Your task to perform on an android device: turn notification dots on Image 0: 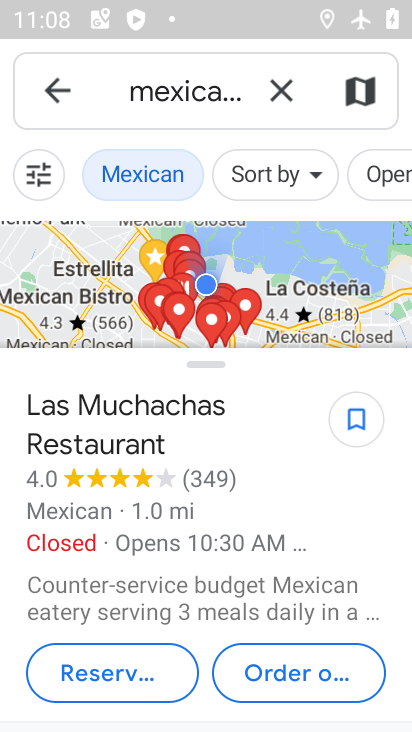
Step 0: press home button
Your task to perform on an android device: turn notification dots on Image 1: 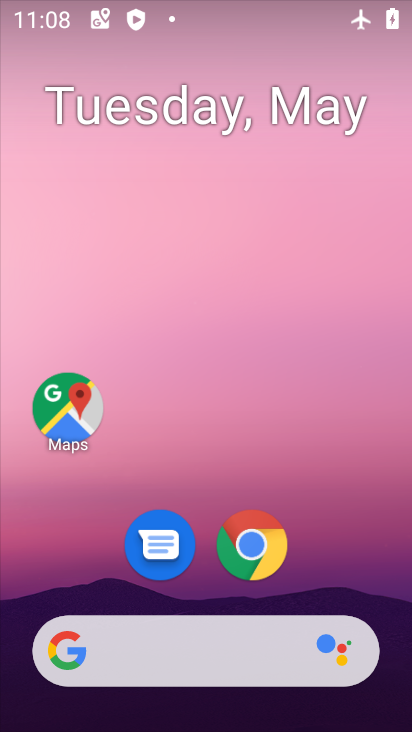
Step 1: drag from (201, 601) to (302, 21)
Your task to perform on an android device: turn notification dots on Image 2: 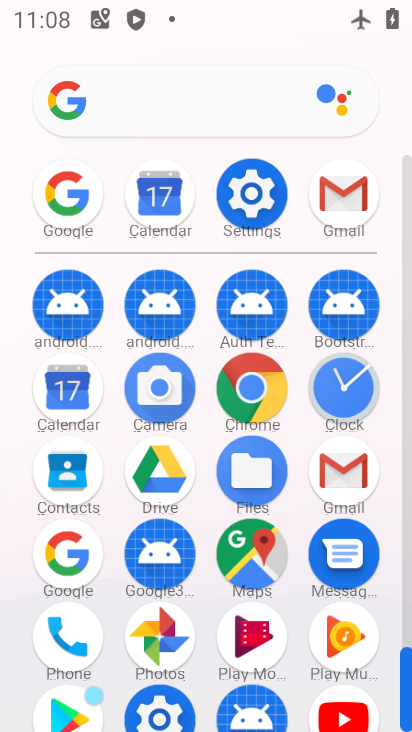
Step 2: click (261, 193)
Your task to perform on an android device: turn notification dots on Image 3: 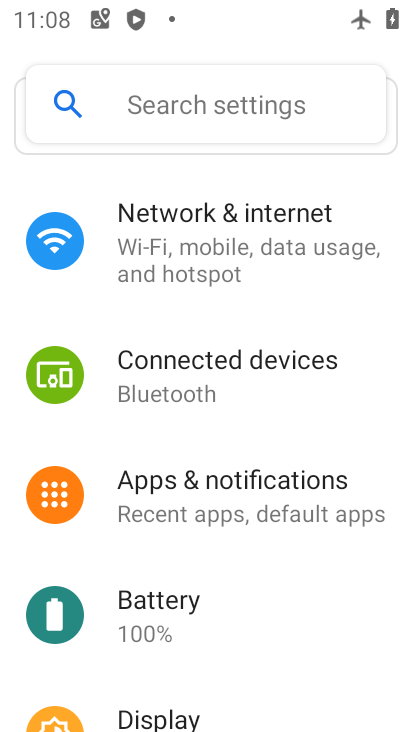
Step 3: drag from (184, 548) to (210, 289)
Your task to perform on an android device: turn notification dots on Image 4: 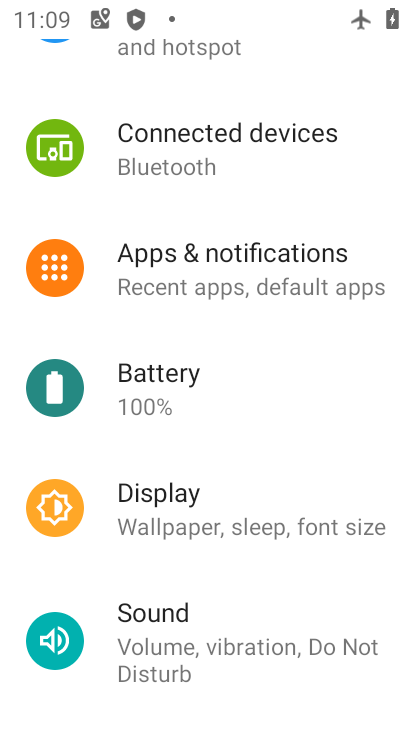
Step 4: drag from (221, 417) to (192, 566)
Your task to perform on an android device: turn notification dots on Image 5: 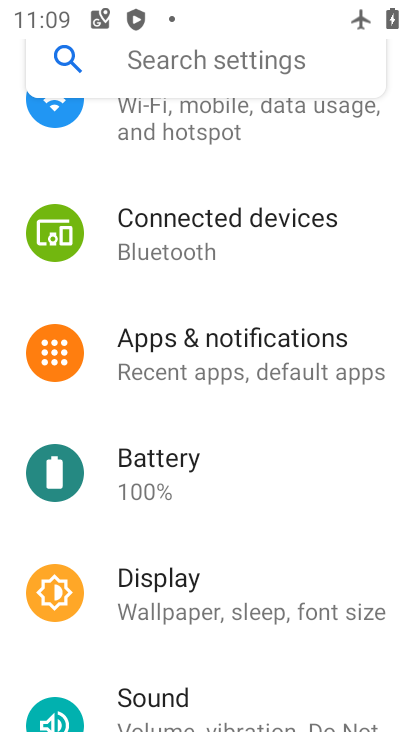
Step 5: drag from (242, 323) to (244, 441)
Your task to perform on an android device: turn notification dots on Image 6: 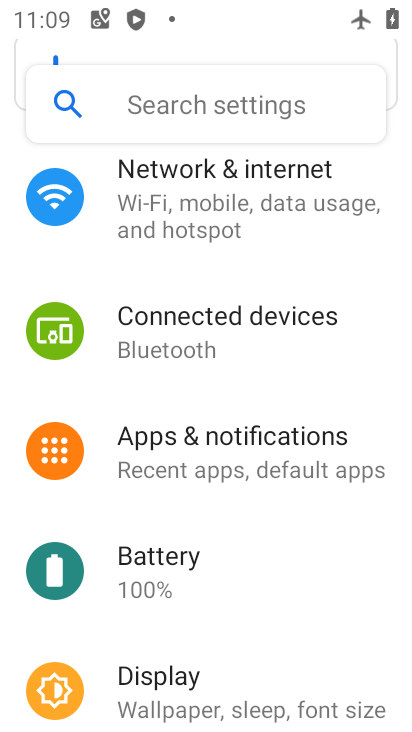
Step 6: click (252, 444)
Your task to perform on an android device: turn notification dots on Image 7: 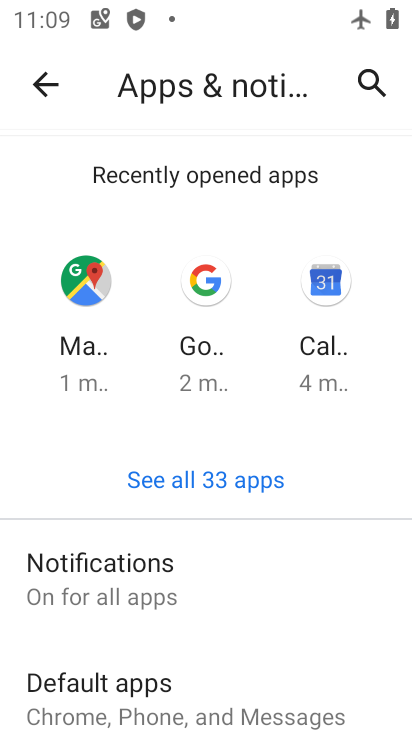
Step 7: drag from (224, 559) to (260, 298)
Your task to perform on an android device: turn notification dots on Image 8: 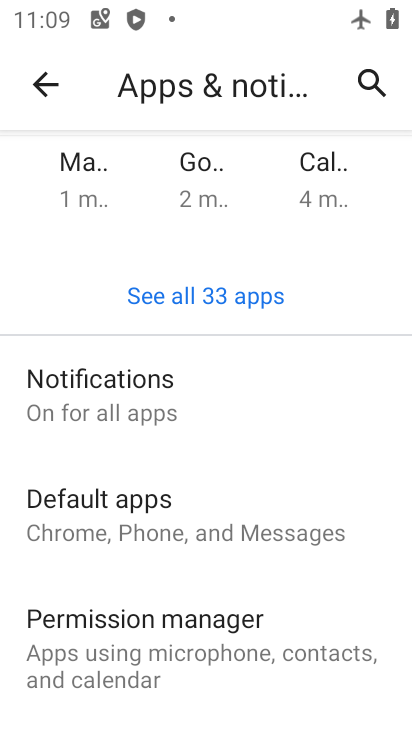
Step 8: click (158, 429)
Your task to perform on an android device: turn notification dots on Image 9: 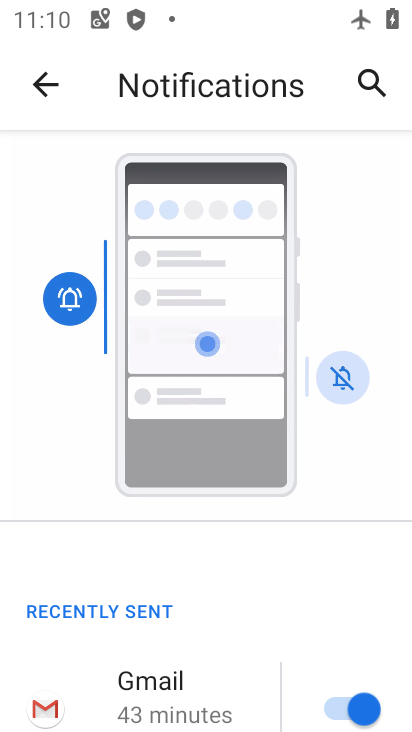
Step 9: drag from (194, 571) to (310, 152)
Your task to perform on an android device: turn notification dots on Image 10: 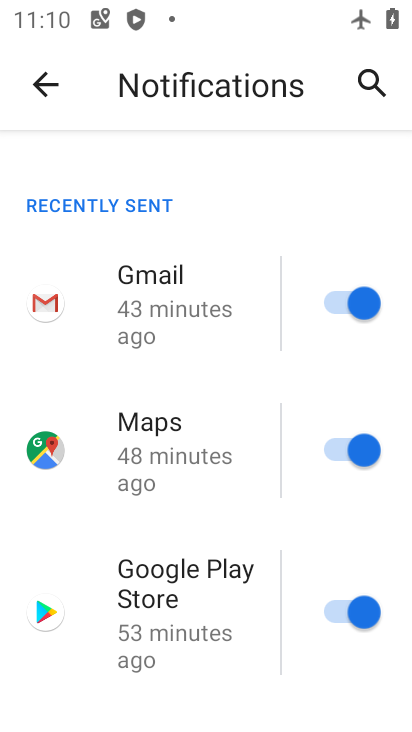
Step 10: drag from (147, 589) to (236, 198)
Your task to perform on an android device: turn notification dots on Image 11: 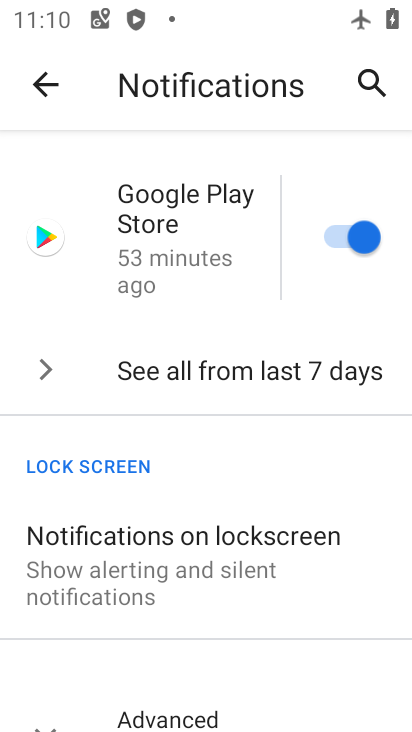
Step 11: click (217, 555)
Your task to perform on an android device: turn notification dots on Image 12: 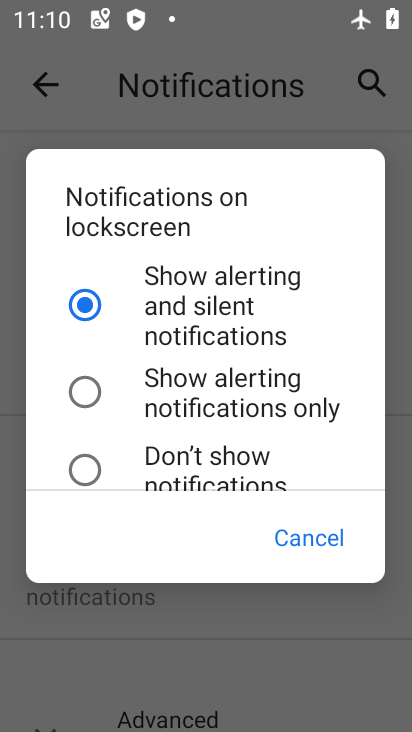
Step 12: task complete